Your task to perform on an android device: change your default location settings in chrome Image 0: 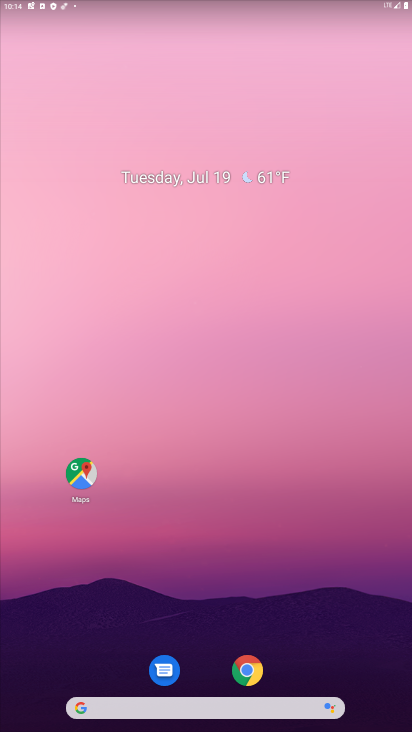
Step 0: click (227, 717)
Your task to perform on an android device: change your default location settings in chrome Image 1: 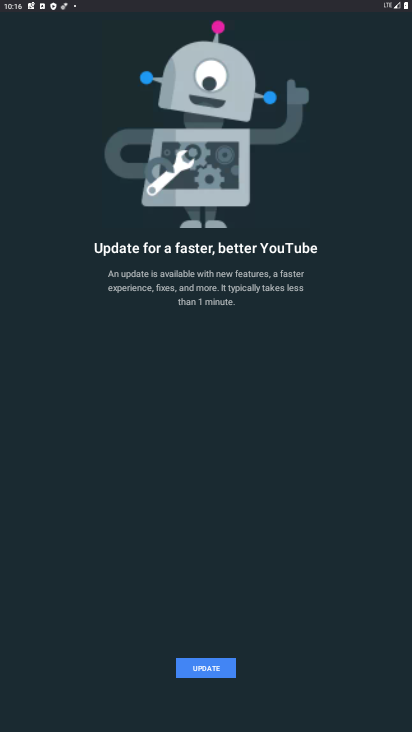
Step 1: press home button
Your task to perform on an android device: change your default location settings in chrome Image 2: 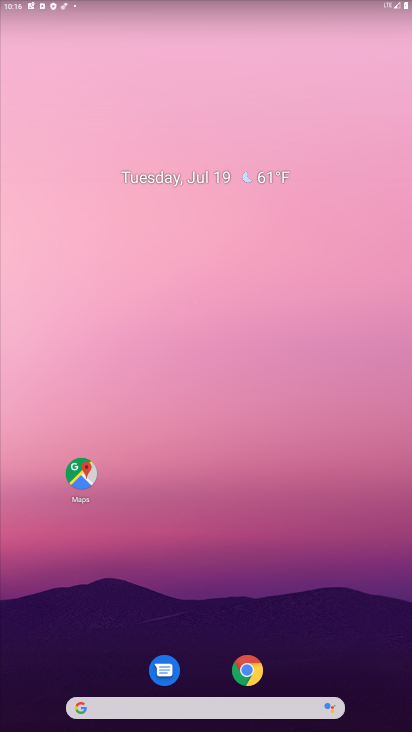
Step 2: click (257, 672)
Your task to perform on an android device: change your default location settings in chrome Image 3: 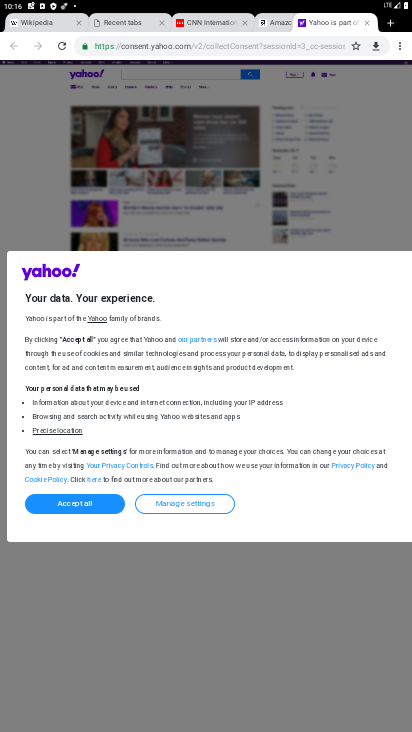
Step 3: click (402, 43)
Your task to perform on an android device: change your default location settings in chrome Image 4: 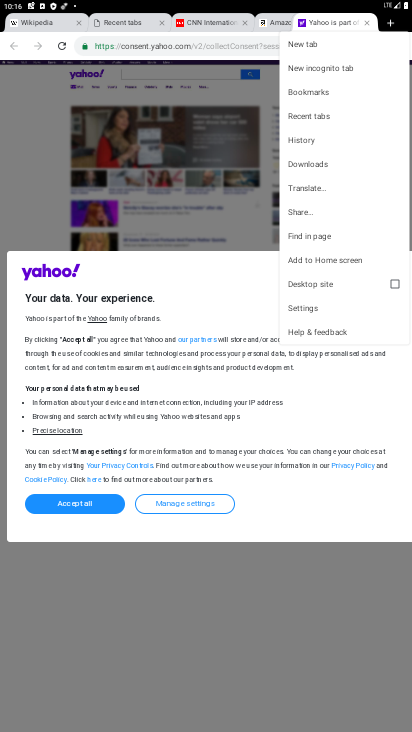
Step 4: click (331, 308)
Your task to perform on an android device: change your default location settings in chrome Image 5: 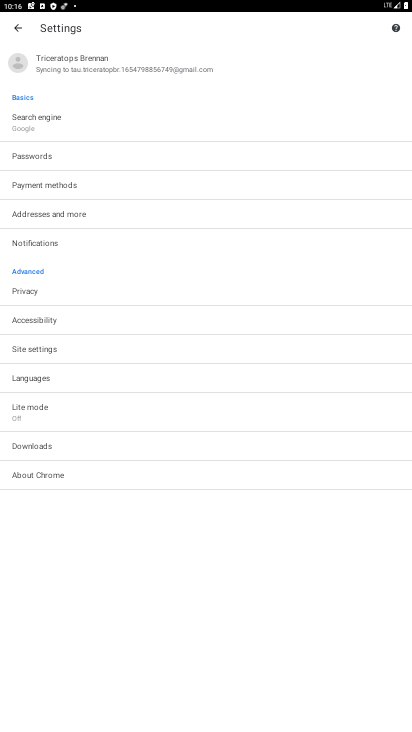
Step 5: click (79, 349)
Your task to perform on an android device: change your default location settings in chrome Image 6: 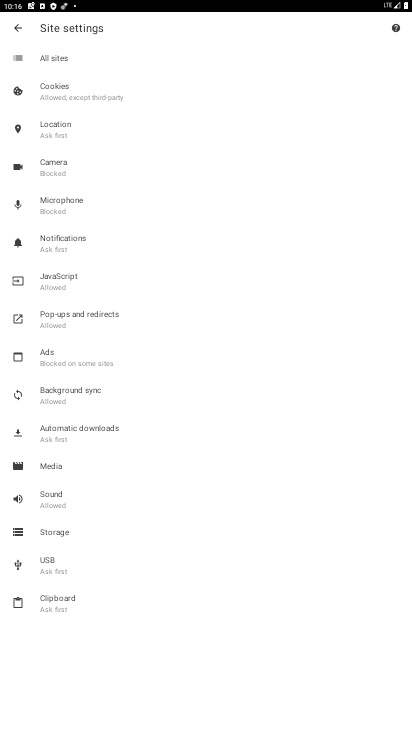
Step 6: click (72, 133)
Your task to perform on an android device: change your default location settings in chrome Image 7: 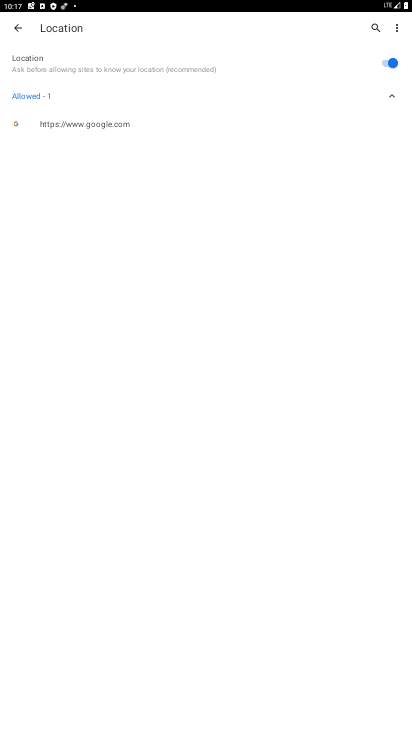
Step 7: task complete